Your task to perform on an android device: toggle data saver in the chrome app Image 0: 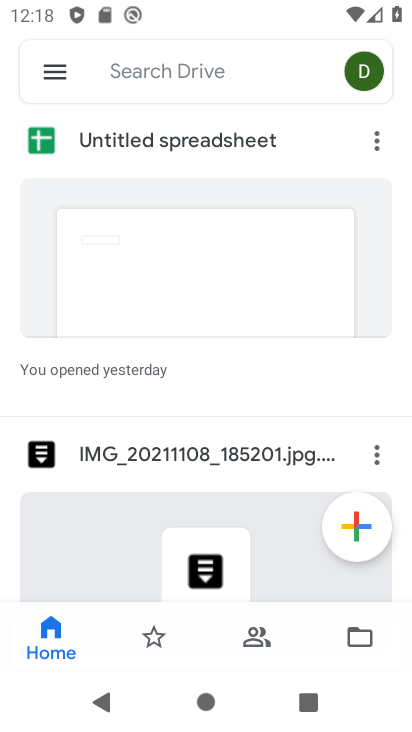
Step 0: press home button
Your task to perform on an android device: toggle data saver in the chrome app Image 1: 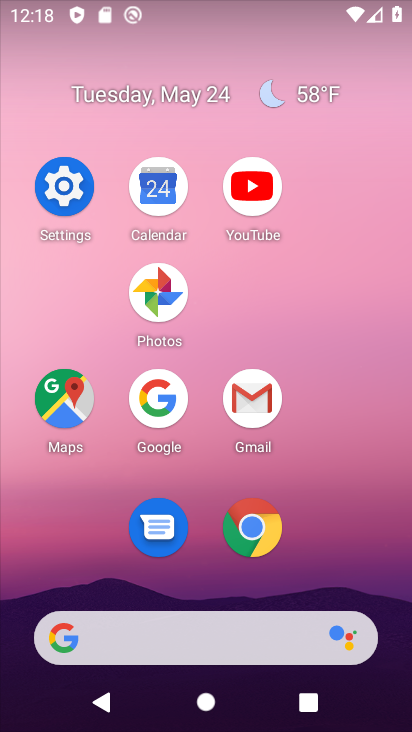
Step 1: click (267, 541)
Your task to perform on an android device: toggle data saver in the chrome app Image 2: 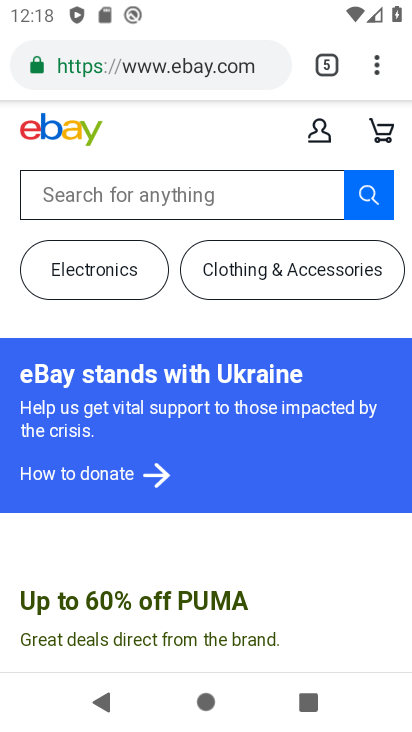
Step 2: click (382, 67)
Your task to perform on an android device: toggle data saver in the chrome app Image 3: 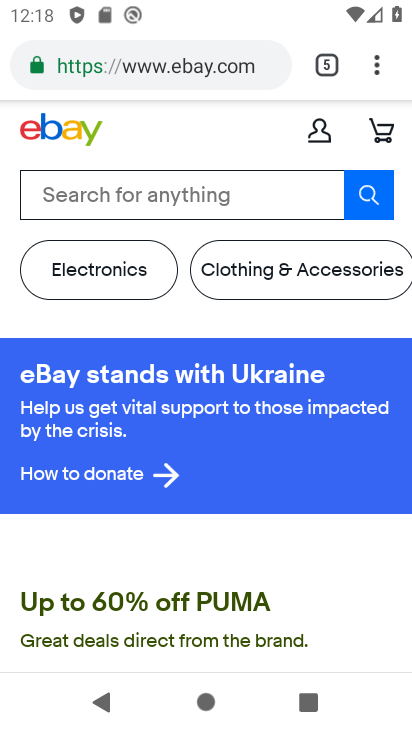
Step 3: click (390, 38)
Your task to perform on an android device: toggle data saver in the chrome app Image 4: 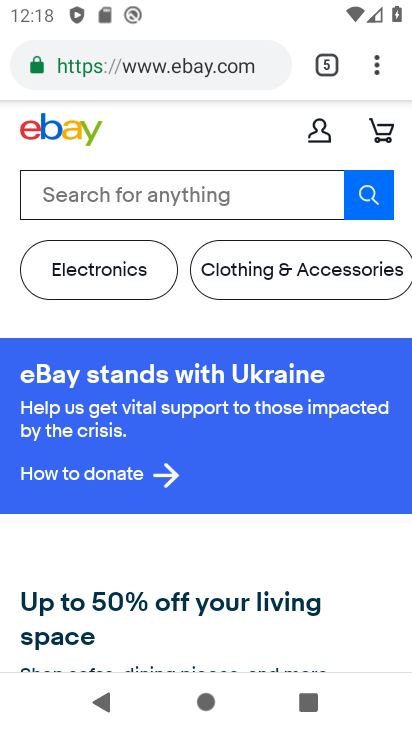
Step 4: click (378, 97)
Your task to perform on an android device: toggle data saver in the chrome app Image 5: 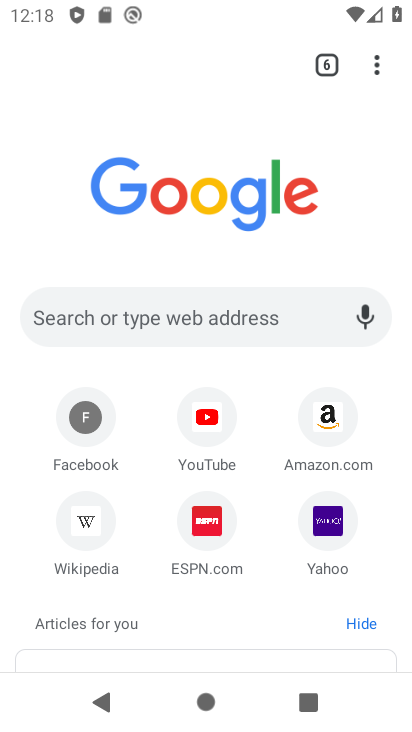
Step 5: click (375, 69)
Your task to perform on an android device: toggle data saver in the chrome app Image 6: 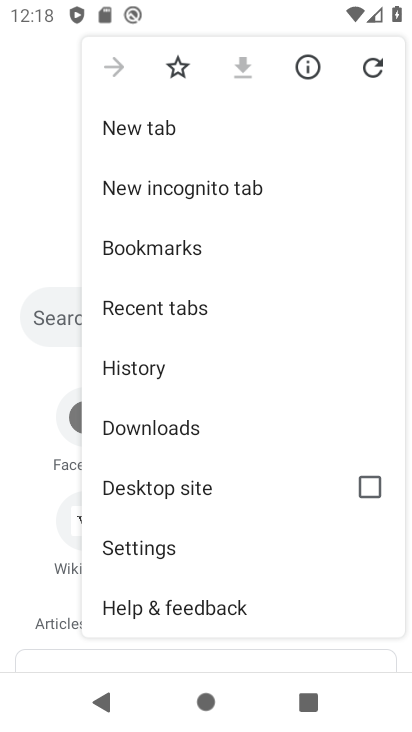
Step 6: drag from (278, 498) to (231, 157)
Your task to perform on an android device: toggle data saver in the chrome app Image 7: 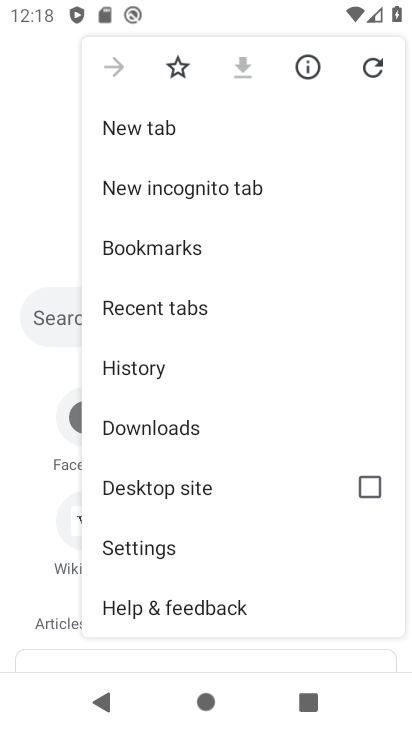
Step 7: click (170, 556)
Your task to perform on an android device: toggle data saver in the chrome app Image 8: 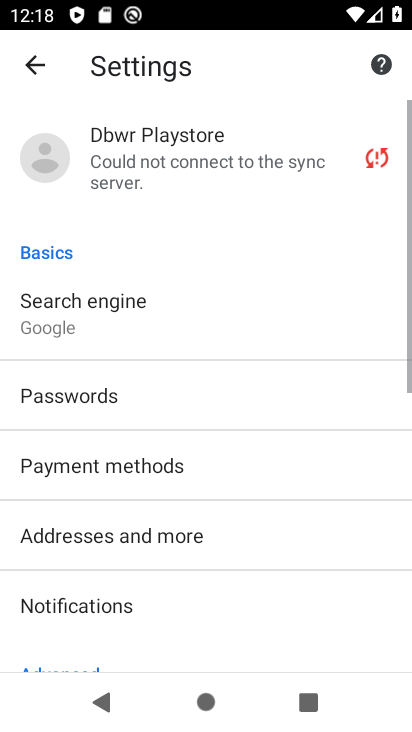
Step 8: drag from (168, 540) to (214, 167)
Your task to perform on an android device: toggle data saver in the chrome app Image 9: 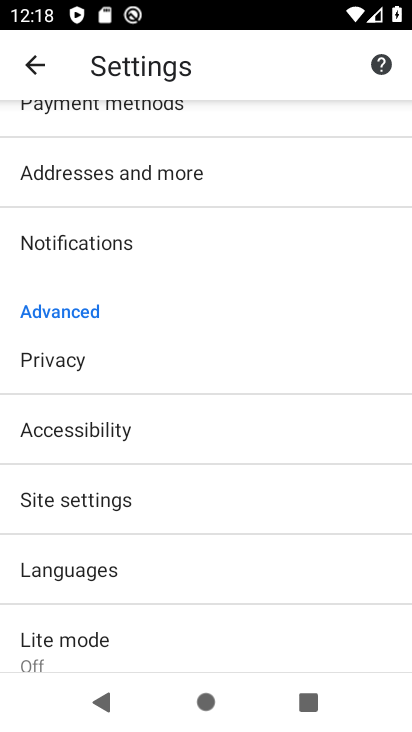
Step 9: drag from (149, 634) to (175, 287)
Your task to perform on an android device: toggle data saver in the chrome app Image 10: 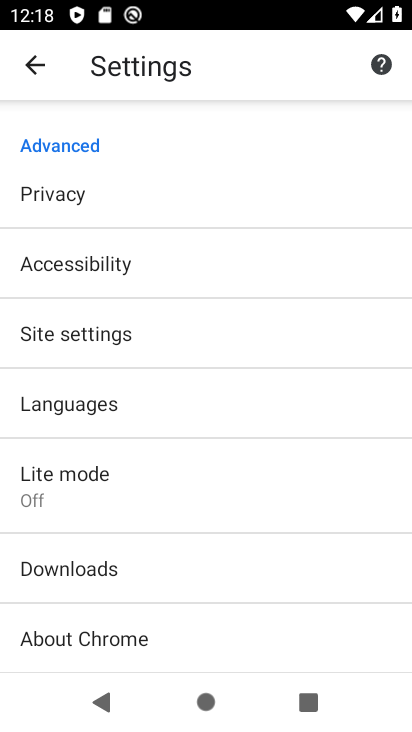
Step 10: click (178, 469)
Your task to perform on an android device: toggle data saver in the chrome app Image 11: 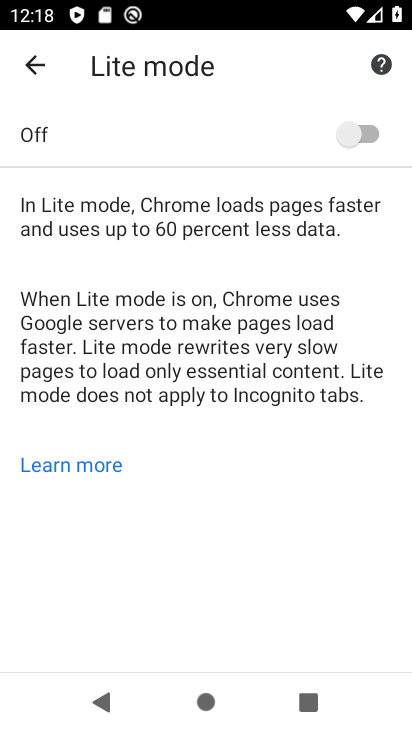
Step 11: click (373, 151)
Your task to perform on an android device: toggle data saver in the chrome app Image 12: 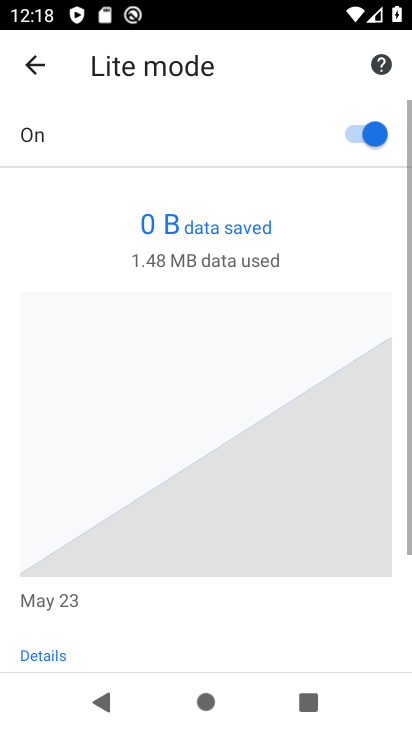
Step 12: task complete